Your task to perform on an android device: Search for sushi restaurants on Maps Image 0: 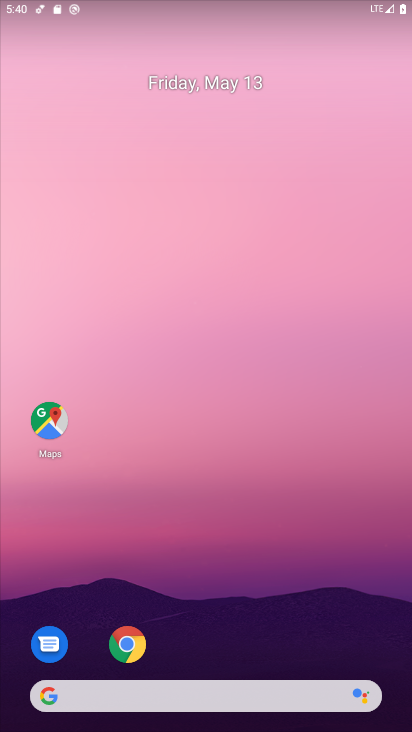
Step 0: click (61, 412)
Your task to perform on an android device: Search for sushi restaurants on Maps Image 1: 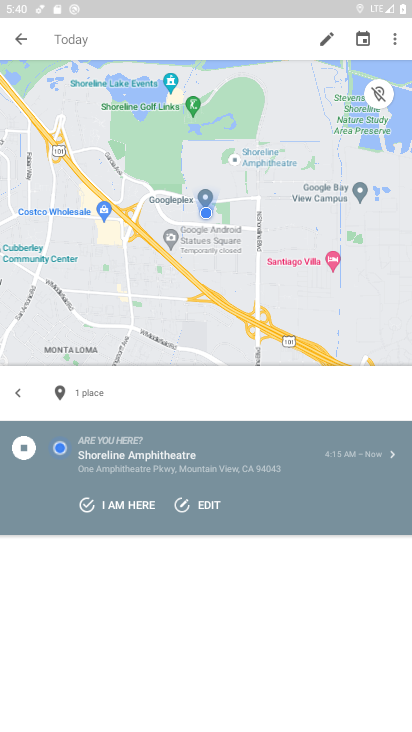
Step 1: click (19, 41)
Your task to perform on an android device: Search for sushi restaurants on Maps Image 2: 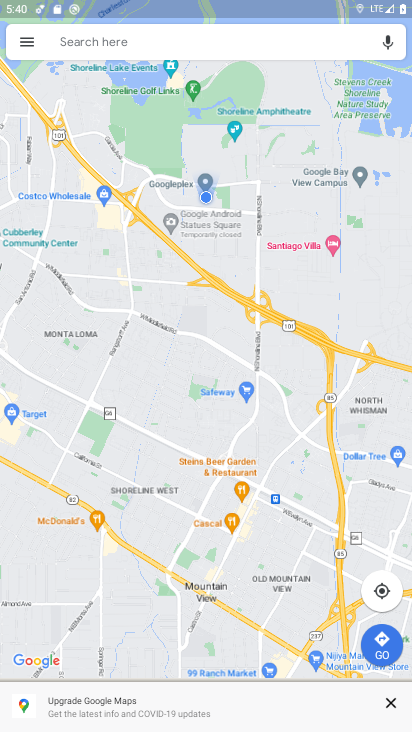
Step 2: click (157, 40)
Your task to perform on an android device: Search for sushi restaurants on Maps Image 3: 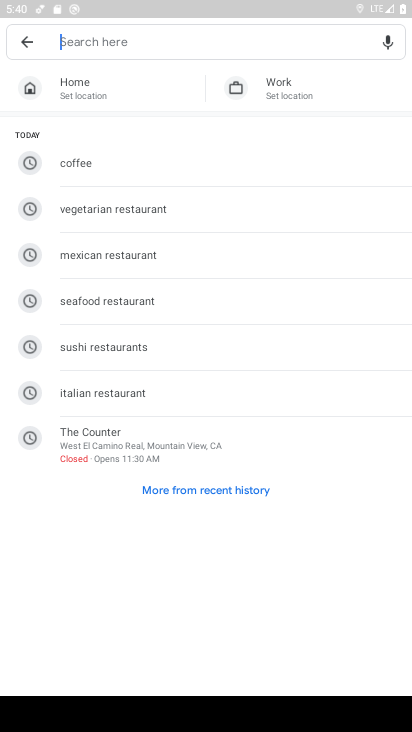
Step 3: type "Sushi Restaurants"
Your task to perform on an android device: Search for sushi restaurants on Maps Image 4: 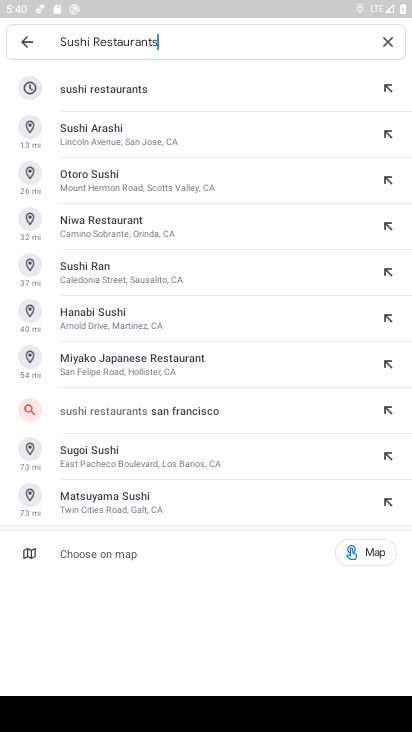
Step 4: click (125, 90)
Your task to perform on an android device: Search for sushi restaurants on Maps Image 5: 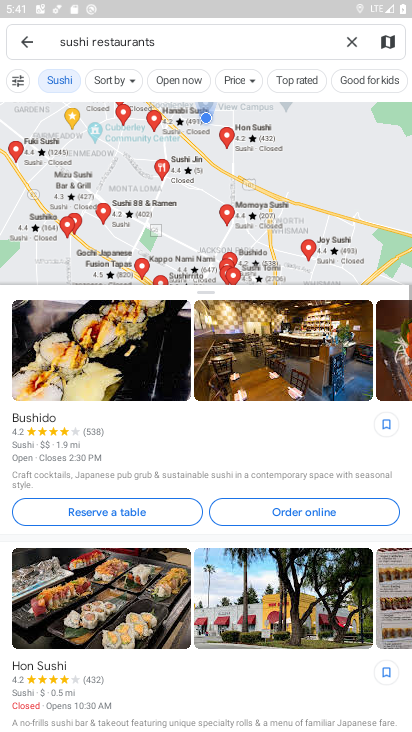
Step 5: task complete